Your task to perform on an android device: Open notification settings Image 0: 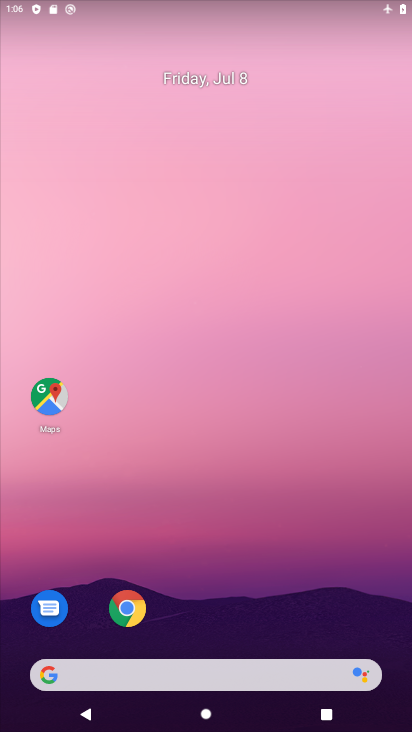
Step 0: drag from (386, 618) to (351, 181)
Your task to perform on an android device: Open notification settings Image 1: 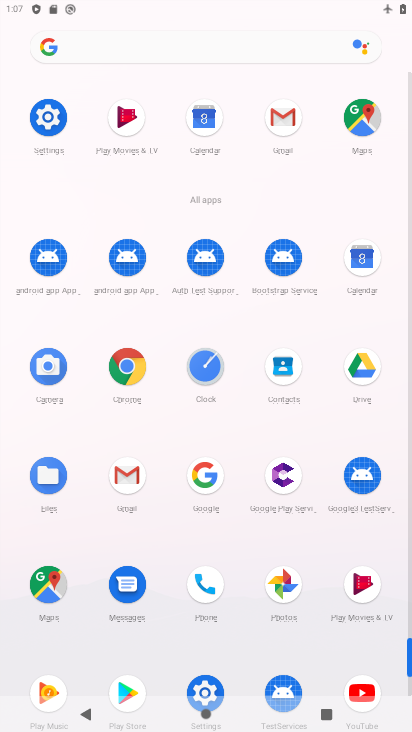
Step 1: click (410, 684)
Your task to perform on an android device: Open notification settings Image 2: 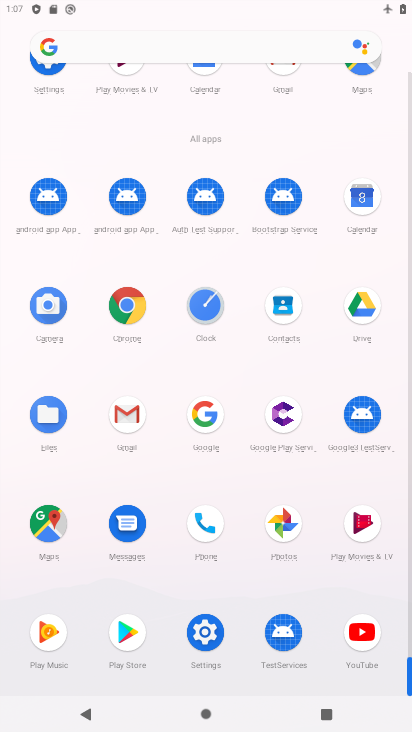
Step 2: click (203, 634)
Your task to perform on an android device: Open notification settings Image 3: 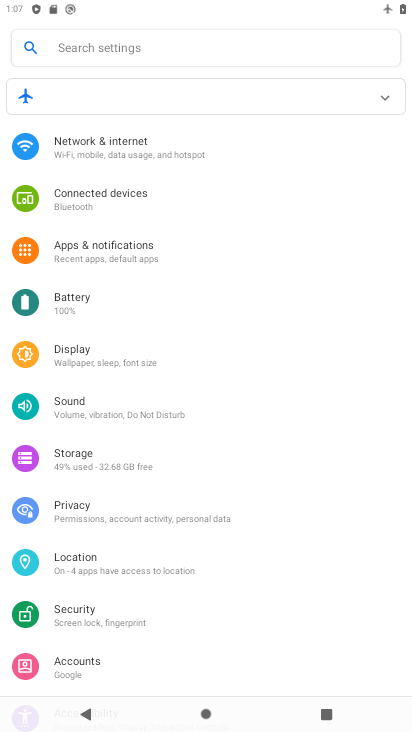
Step 3: click (93, 244)
Your task to perform on an android device: Open notification settings Image 4: 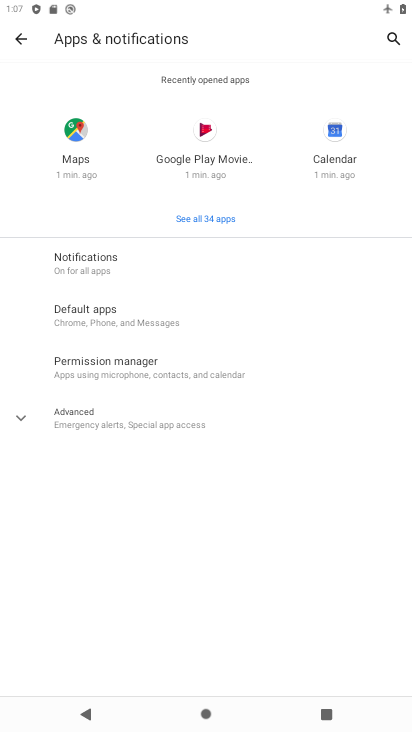
Step 4: click (105, 257)
Your task to perform on an android device: Open notification settings Image 5: 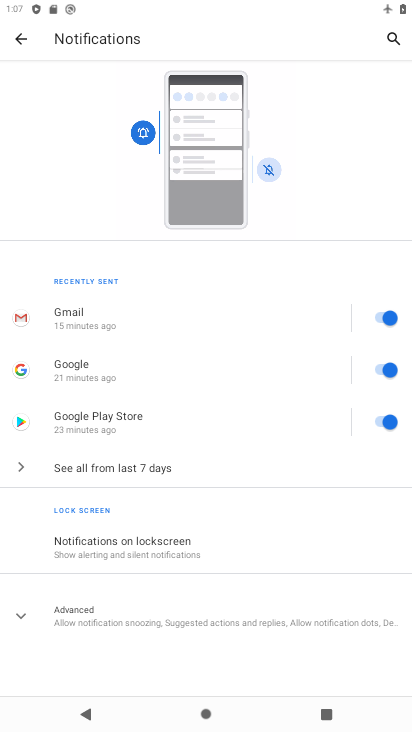
Step 5: task complete